Your task to perform on an android device: turn on notifications settings in the gmail app Image 0: 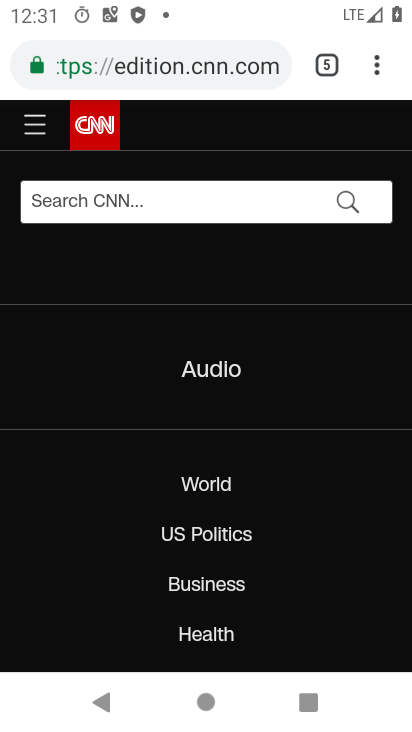
Step 0: press home button
Your task to perform on an android device: turn on notifications settings in the gmail app Image 1: 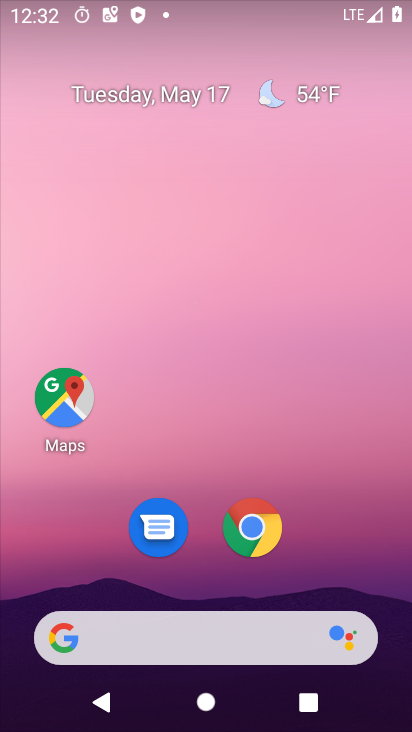
Step 1: drag from (244, 671) to (284, 243)
Your task to perform on an android device: turn on notifications settings in the gmail app Image 2: 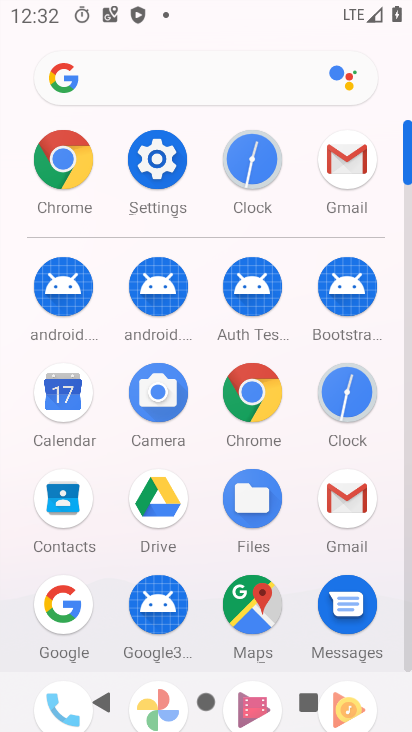
Step 2: click (343, 148)
Your task to perform on an android device: turn on notifications settings in the gmail app Image 3: 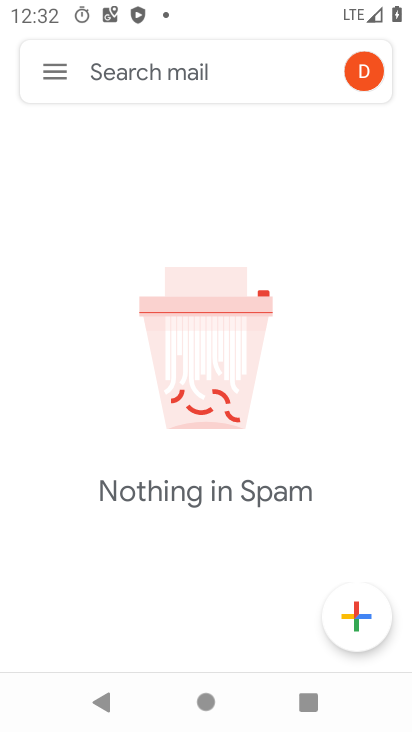
Step 3: click (61, 87)
Your task to perform on an android device: turn on notifications settings in the gmail app Image 4: 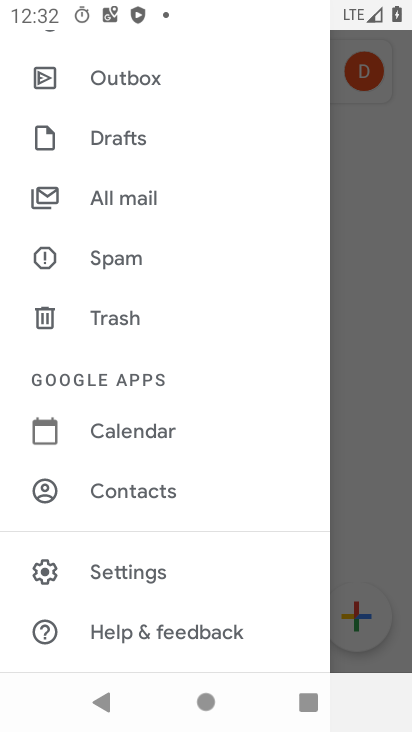
Step 4: click (128, 573)
Your task to perform on an android device: turn on notifications settings in the gmail app Image 5: 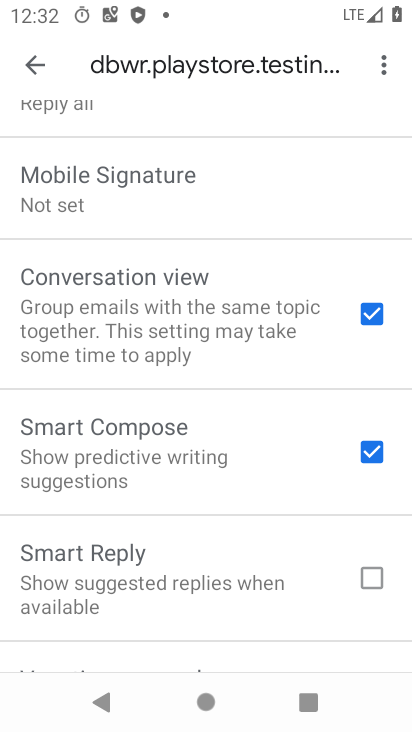
Step 5: drag from (146, 204) to (132, 514)
Your task to perform on an android device: turn on notifications settings in the gmail app Image 6: 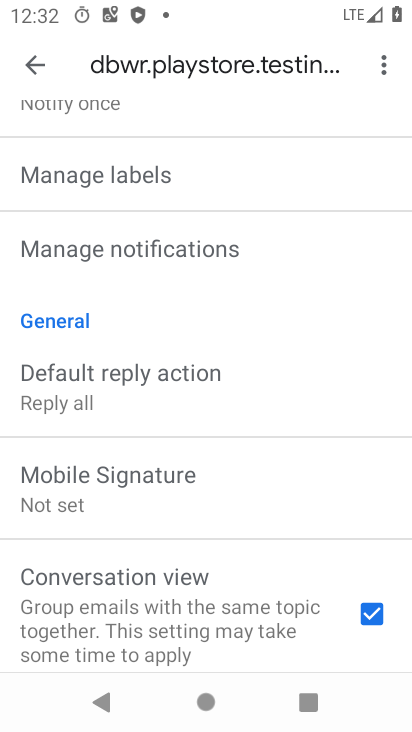
Step 6: drag from (109, 214) to (88, 342)
Your task to perform on an android device: turn on notifications settings in the gmail app Image 7: 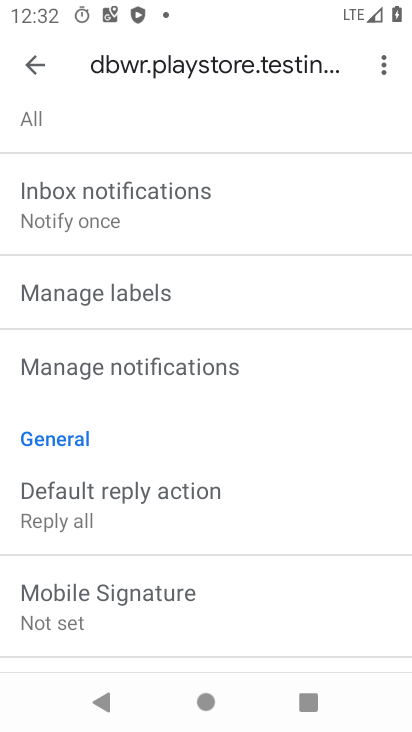
Step 7: click (130, 200)
Your task to perform on an android device: turn on notifications settings in the gmail app Image 8: 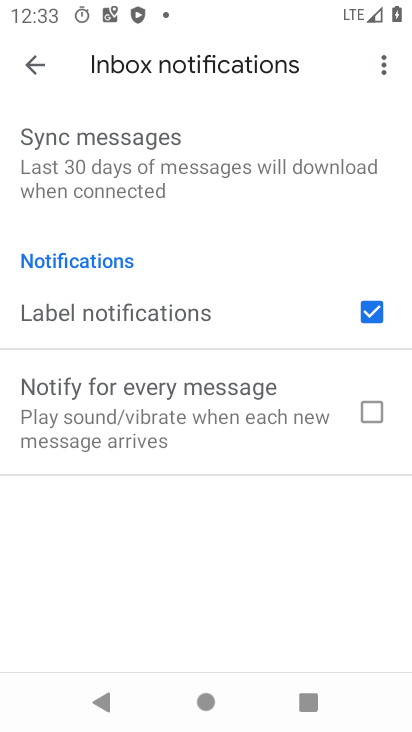
Step 8: task complete